Your task to perform on an android device: Open network settings Image 0: 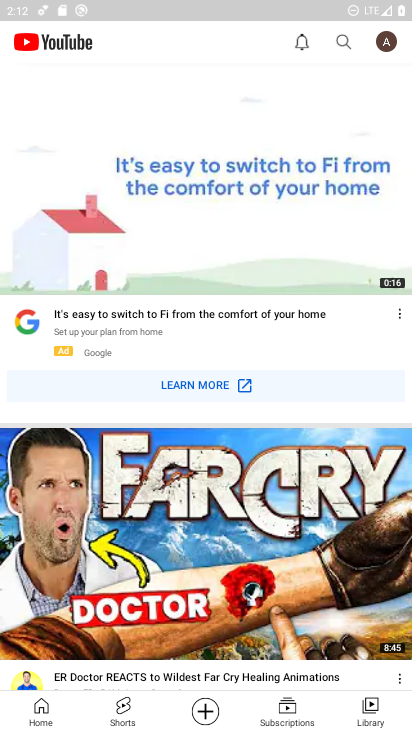
Step 0: press home button
Your task to perform on an android device: Open network settings Image 1: 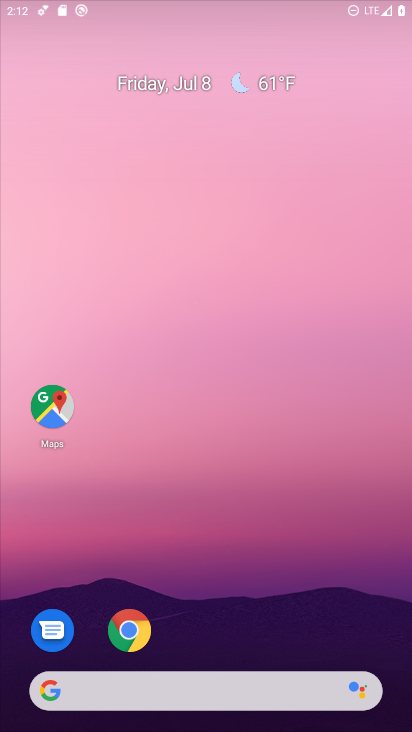
Step 1: drag from (385, 631) to (231, 20)
Your task to perform on an android device: Open network settings Image 2: 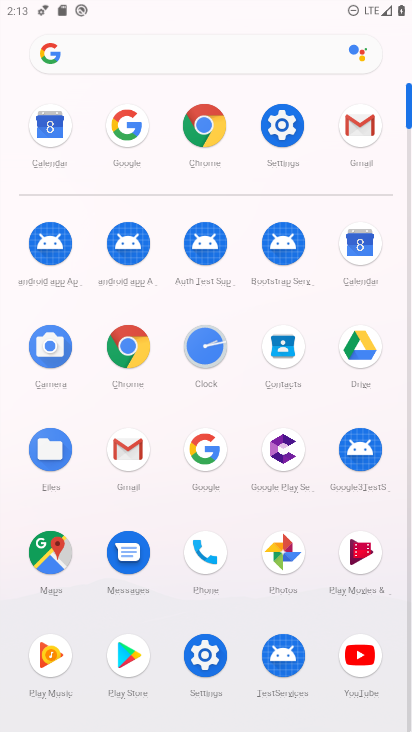
Step 2: click (199, 639)
Your task to perform on an android device: Open network settings Image 3: 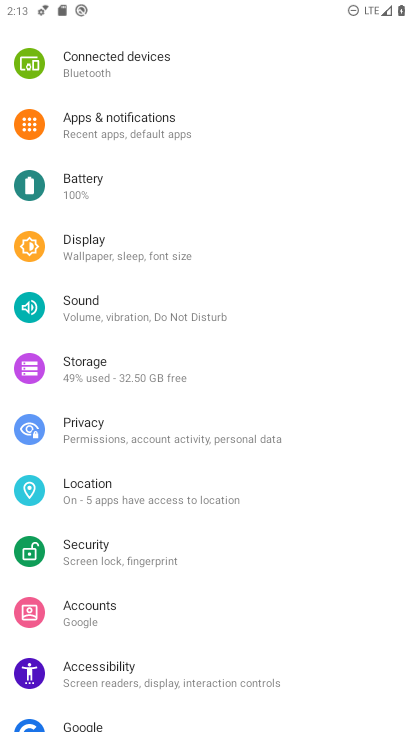
Step 3: drag from (90, 77) to (145, 618)
Your task to perform on an android device: Open network settings Image 4: 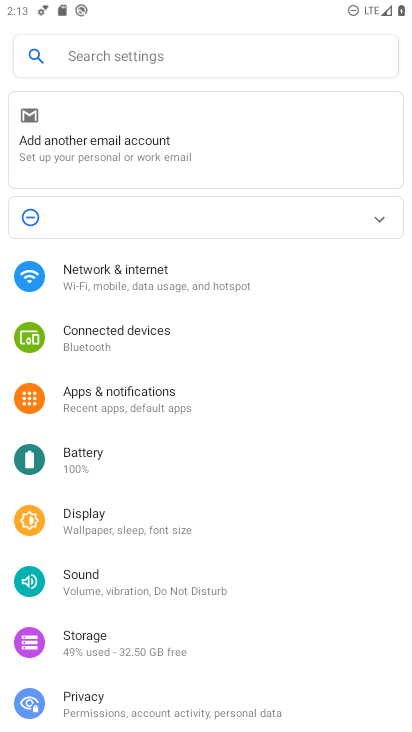
Step 4: click (188, 272)
Your task to perform on an android device: Open network settings Image 5: 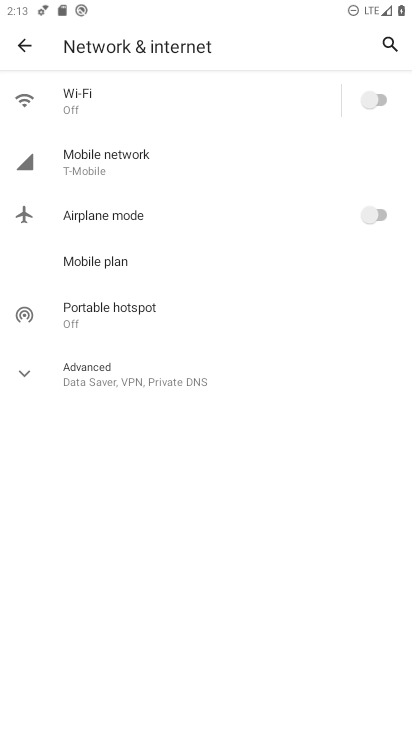
Step 5: task complete